Your task to perform on an android device: find photos in the google photos app Image 0: 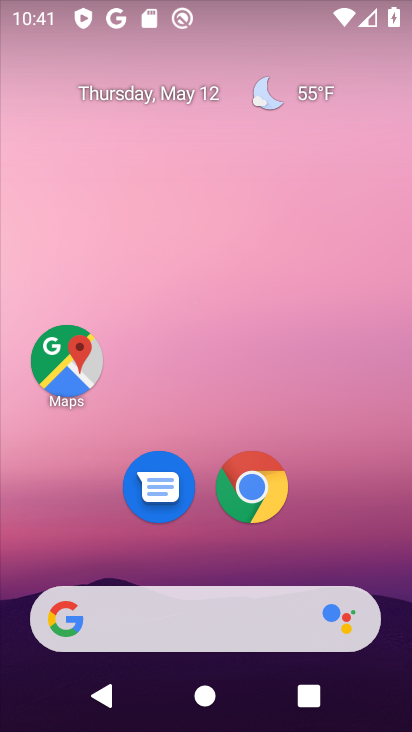
Step 0: drag from (371, 546) to (394, 19)
Your task to perform on an android device: find photos in the google photos app Image 1: 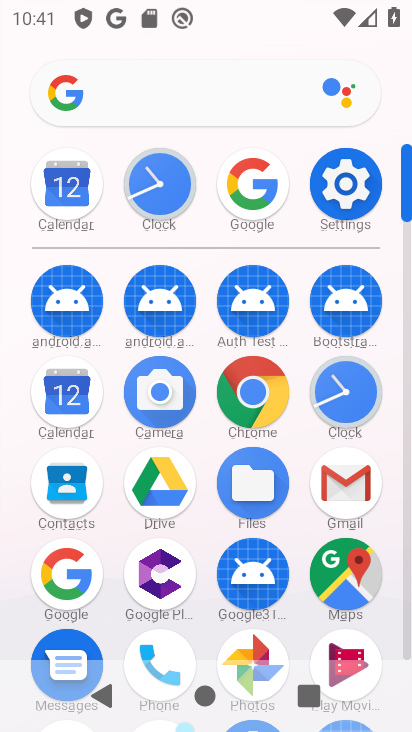
Step 1: click (248, 648)
Your task to perform on an android device: find photos in the google photos app Image 2: 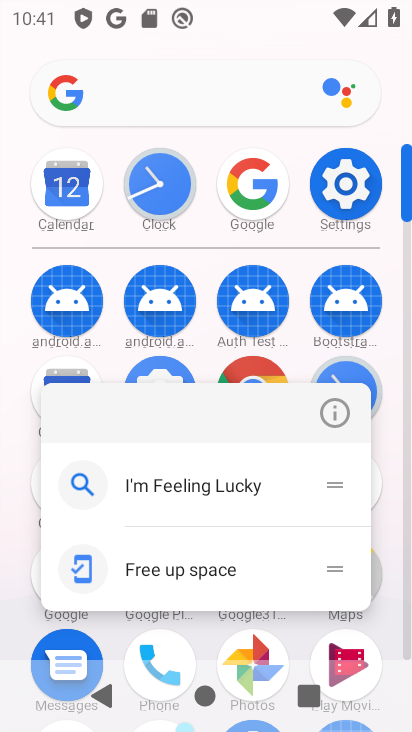
Step 2: click (409, 539)
Your task to perform on an android device: find photos in the google photos app Image 3: 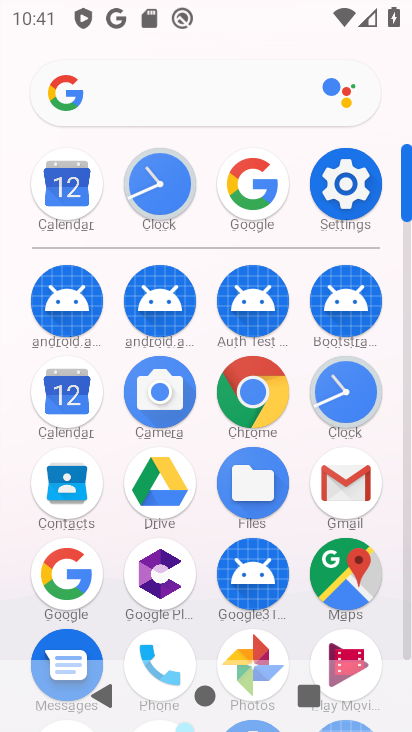
Step 3: click (256, 645)
Your task to perform on an android device: find photos in the google photos app Image 4: 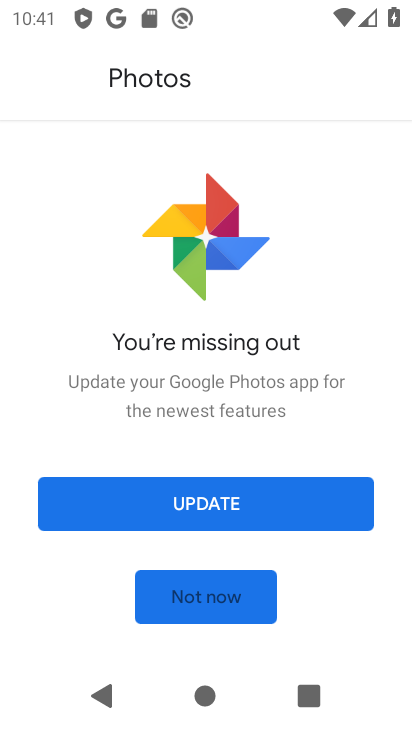
Step 4: click (206, 601)
Your task to perform on an android device: find photos in the google photos app Image 5: 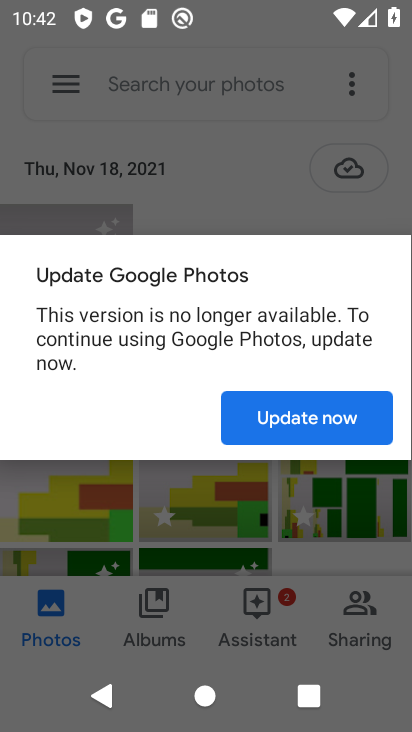
Step 5: click (296, 434)
Your task to perform on an android device: find photos in the google photos app Image 6: 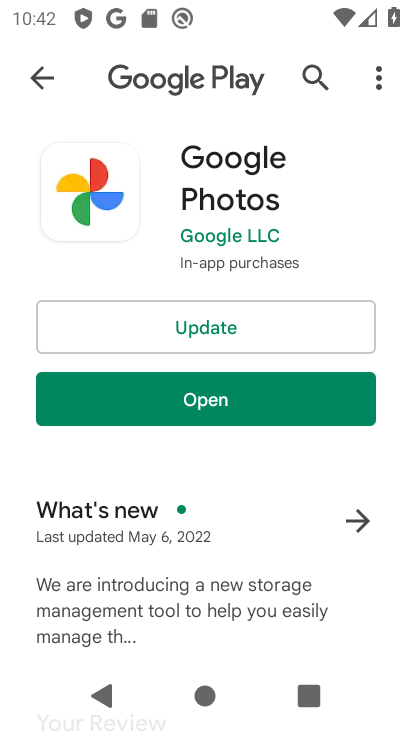
Step 6: click (141, 403)
Your task to perform on an android device: find photos in the google photos app Image 7: 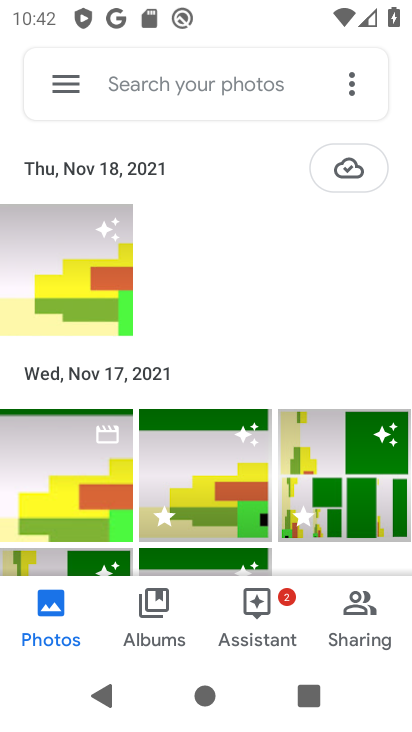
Step 7: task complete